Your task to perform on an android device: add a contact in the contacts app Image 0: 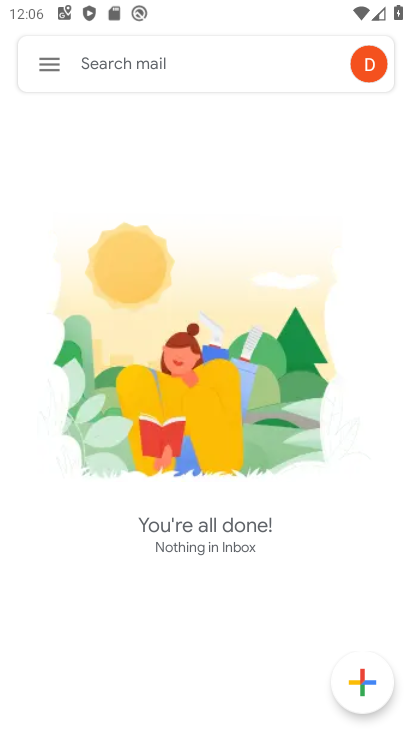
Step 0: press home button
Your task to perform on an android device: add a contact in the contacts app Image 1: 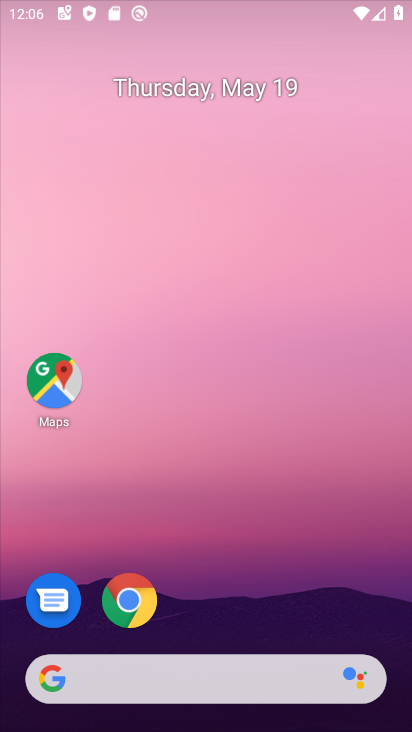
Step 1: drag from (272, 561) to (195, 29)
Your task to perform on an android device: add a contact in the contacts app Image 2: 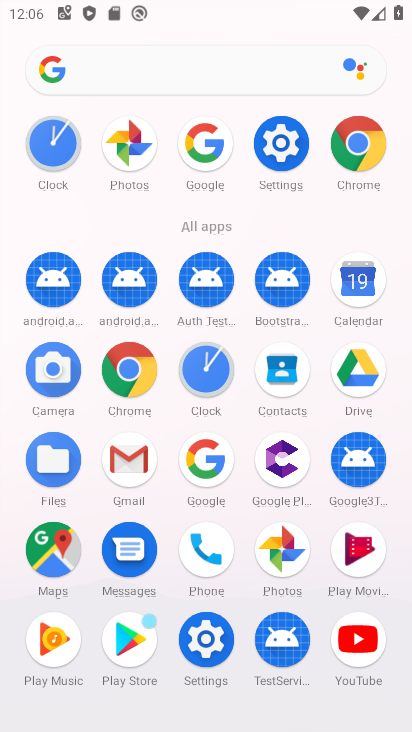
Step 2: click (287, 376)
Your task to perform on an android device: add a contact in the contacts app Image 3: 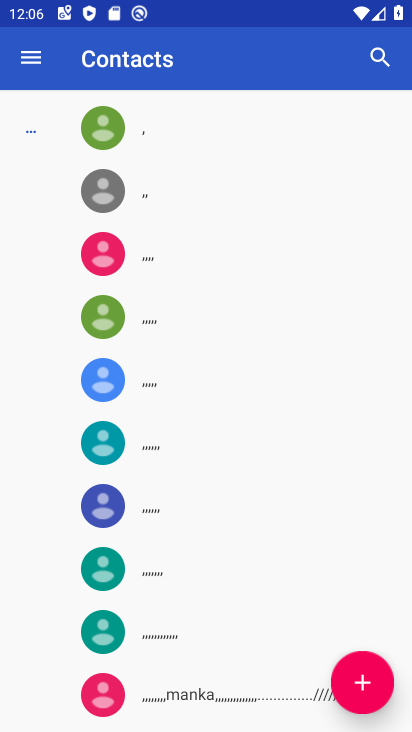
Step 3: click (362, 673)
Your task to perform on an android device: add a contact in the contacts app Image 4: 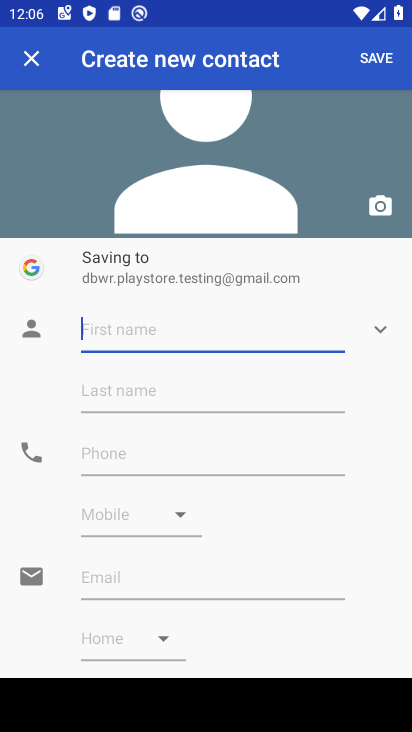
Step 4: type "ghfhgfhfhhg"
Your task to perform on an android device: add a contact in the contacts app Image 5: 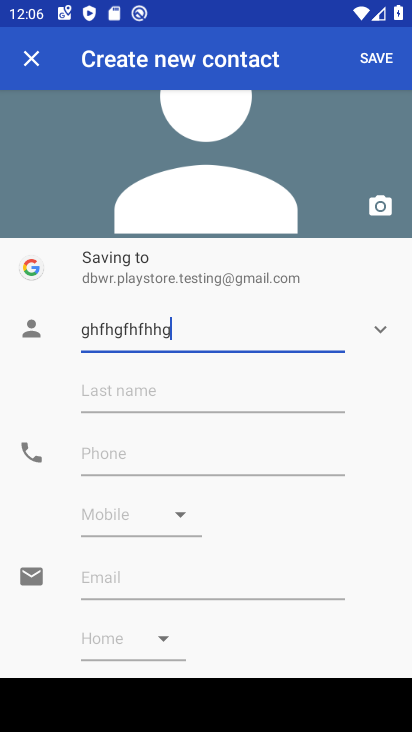
Step 5: type ""
Your task to perform on an android device: add a contact in the contacts app Image 6: 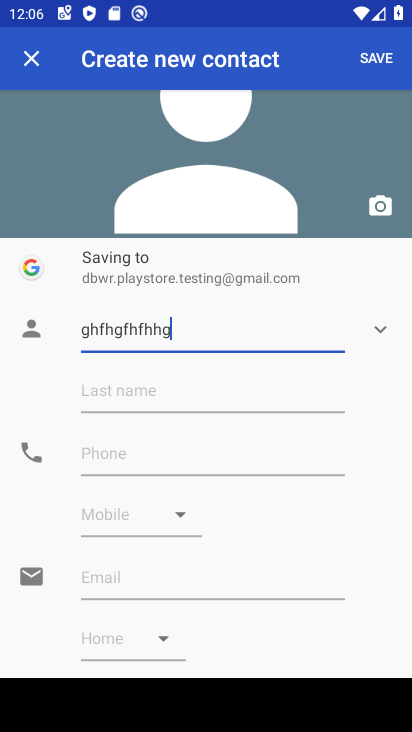
Step 6: click (178, 391)
Your task to perform on an android device: add a contact in the contacts app Image 7: 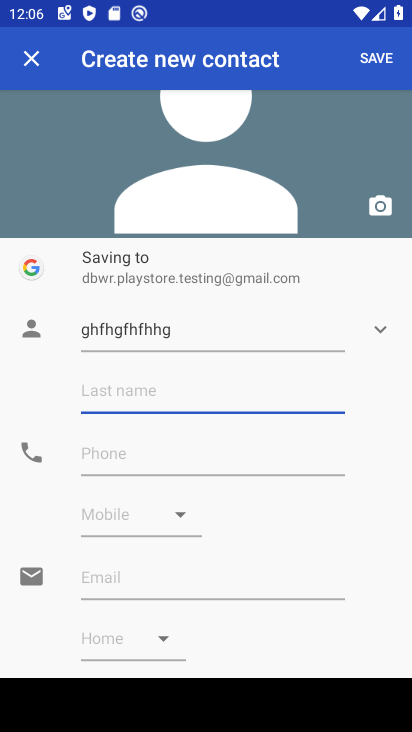
Step 7: type "jhghjj"
Your task to perform on an android device: add a contact in the contacts app Image 8: 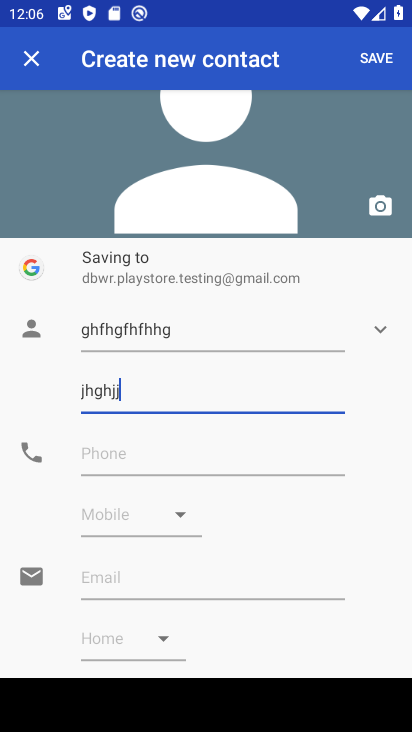
Step 8: type ""
Your task to perform on an android device: add a contact in the contacts app Image 9: 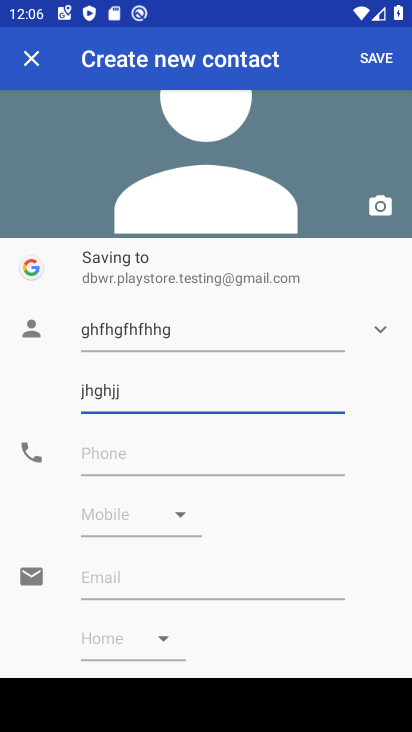
Step 9: click (267, 458)
Your task to perform on an android device: add a contact in the contacts app Image 10: 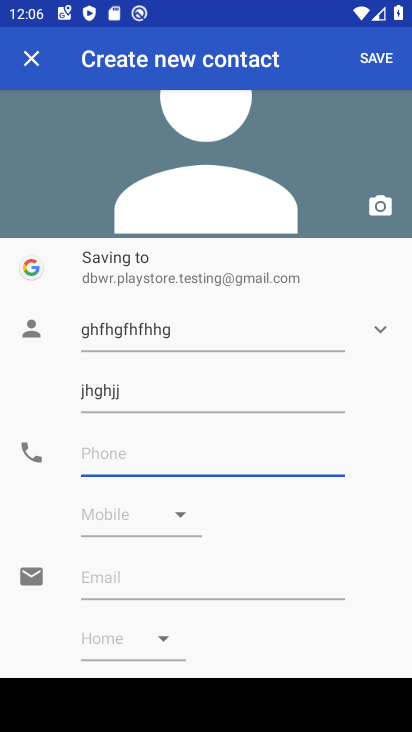
Step 10: type "7677767657657"
Your task to perform on an android device: add a contact in the contacts app Image 11: 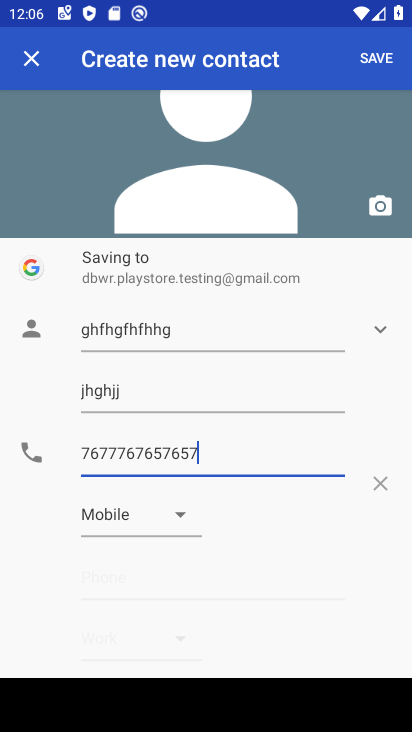
Step 11: type ""
Your task to perform on an android device: add a contact in the contacts app Image 12: 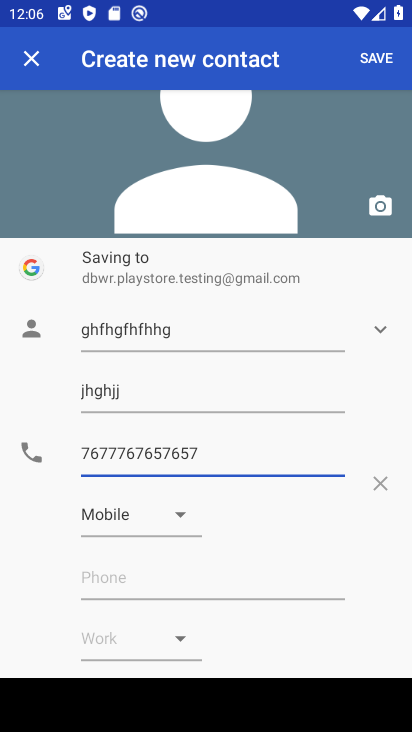
Step 12: click (376, 45)
Your task to perform on an android device: add a contact in the contacts app Image 13: 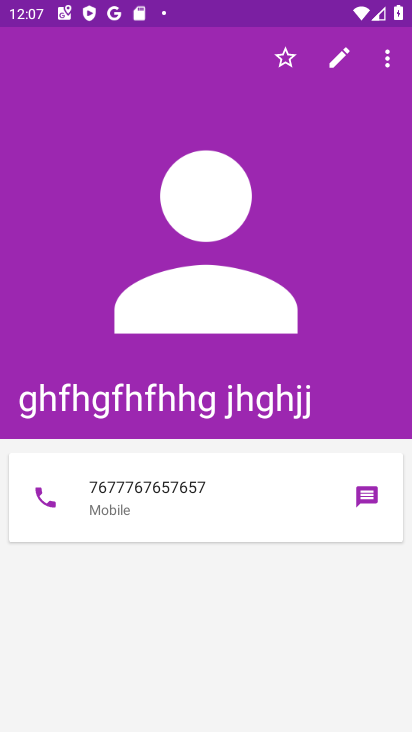
Step 13: task complete